Your task to perform on an android device: make emails show in primary in the gmail app Image 0: 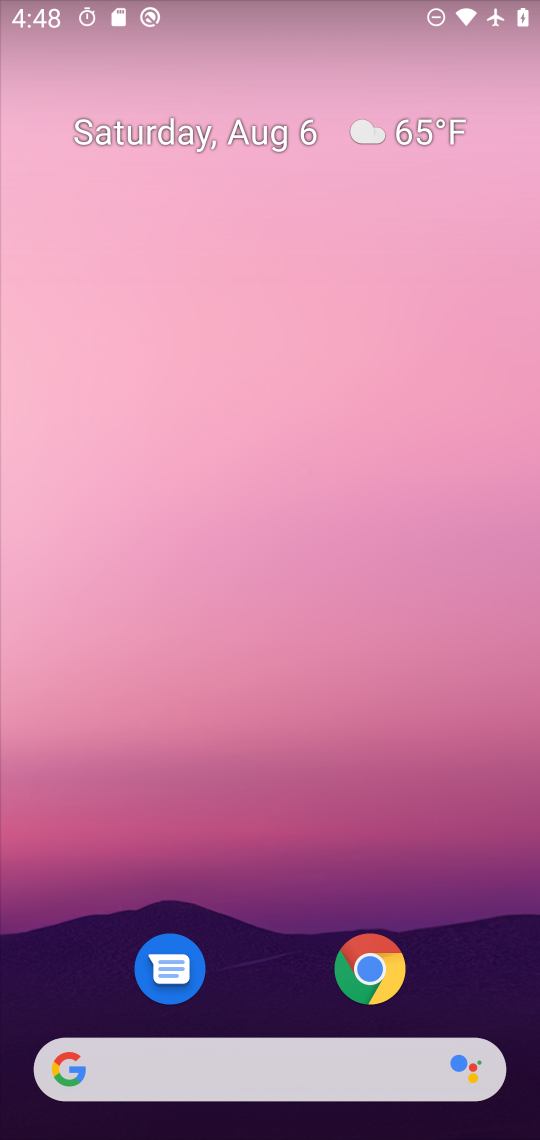
Step 0: press home button
Your task to perform on an android device: make emails show in primary in the gmail app Image 1: 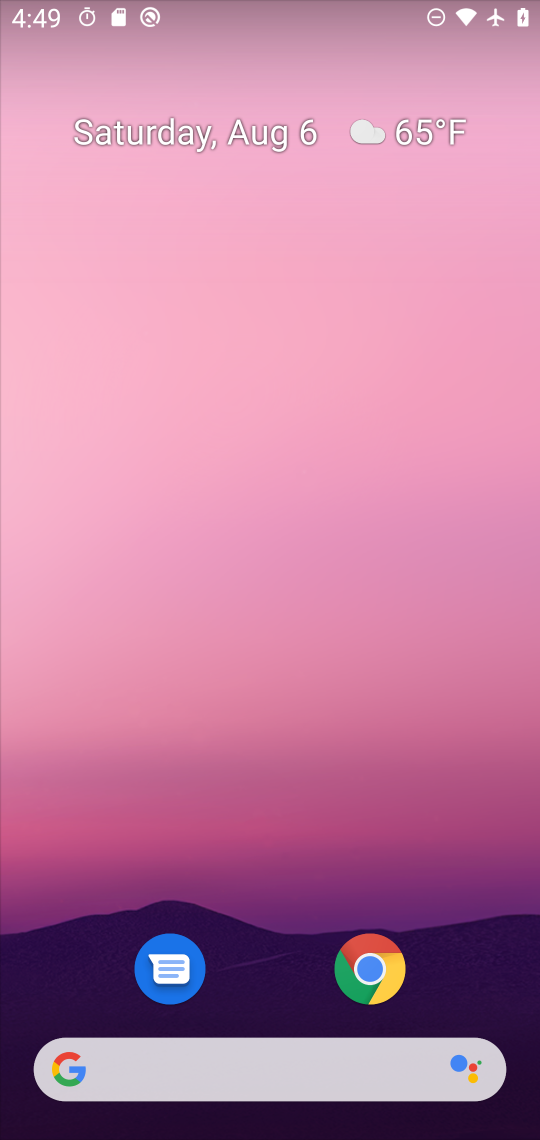
Step 1: drag from (304, 809) to (294, 210)
Your task to perform on an android device: make emails show in primary in the gmail app Image 2: 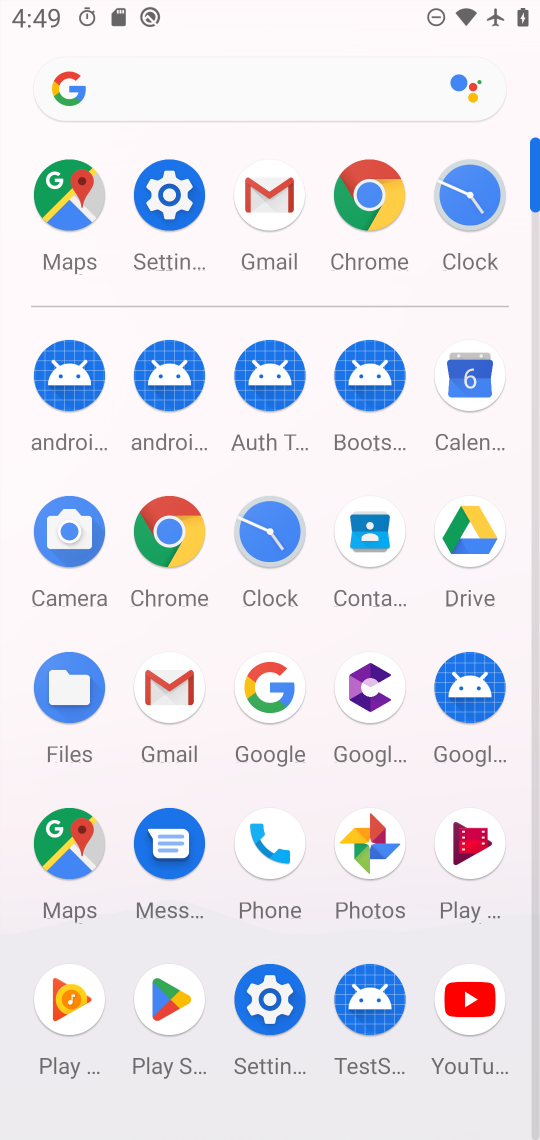
Step 2: click (264, 206)
Your task to perform on an android device: make emails show in primary in the gmail app Image 3: 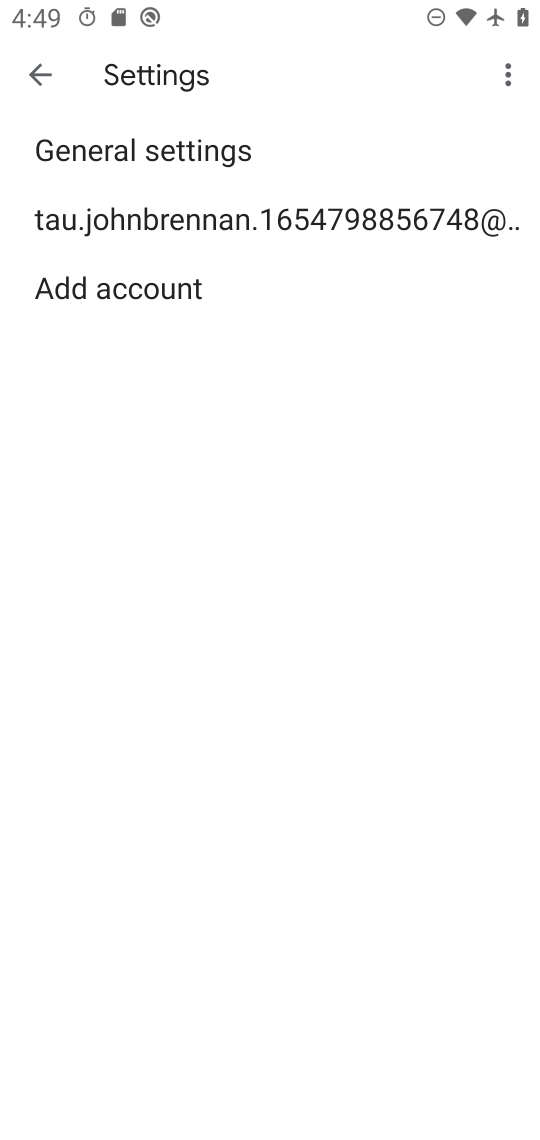
Step 3: click (212, 224)
Your task to perform on an android device: make emails show in primary in the gmail app Image 4: 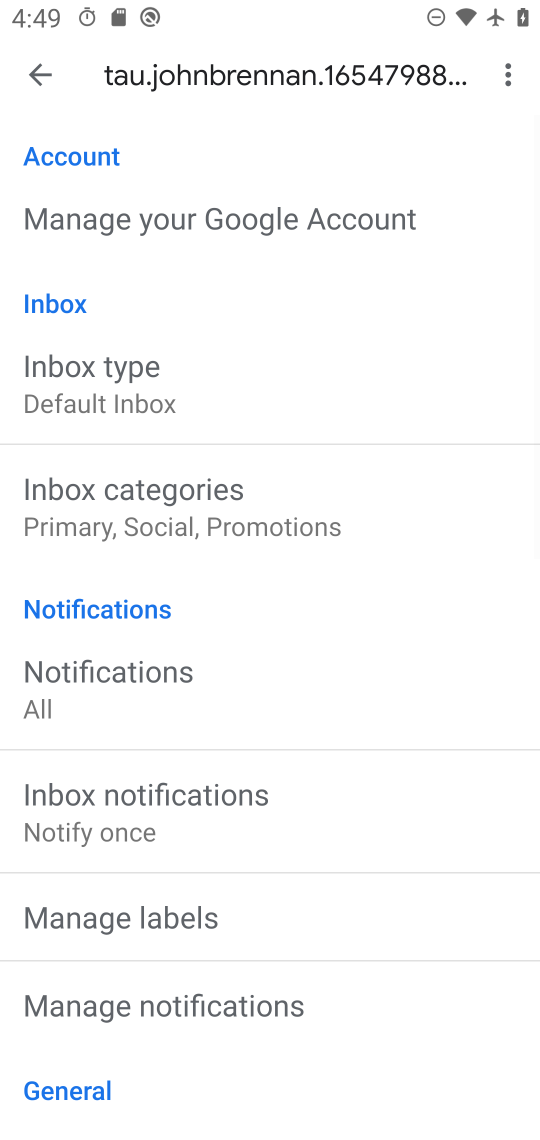
Step 4: click (187, 510)
Your task to perform on an android device: make emails show in primary in the gmail app Image 5: 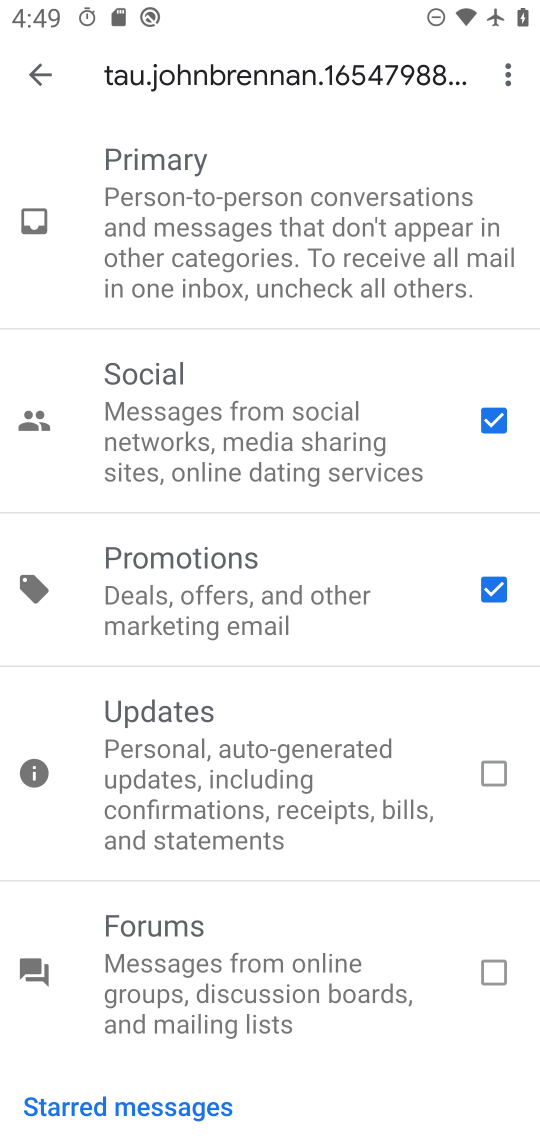
Step 5: click (489, 417)
Your task to perform on an android device: make emails show in primary in the gmail app Image 6: 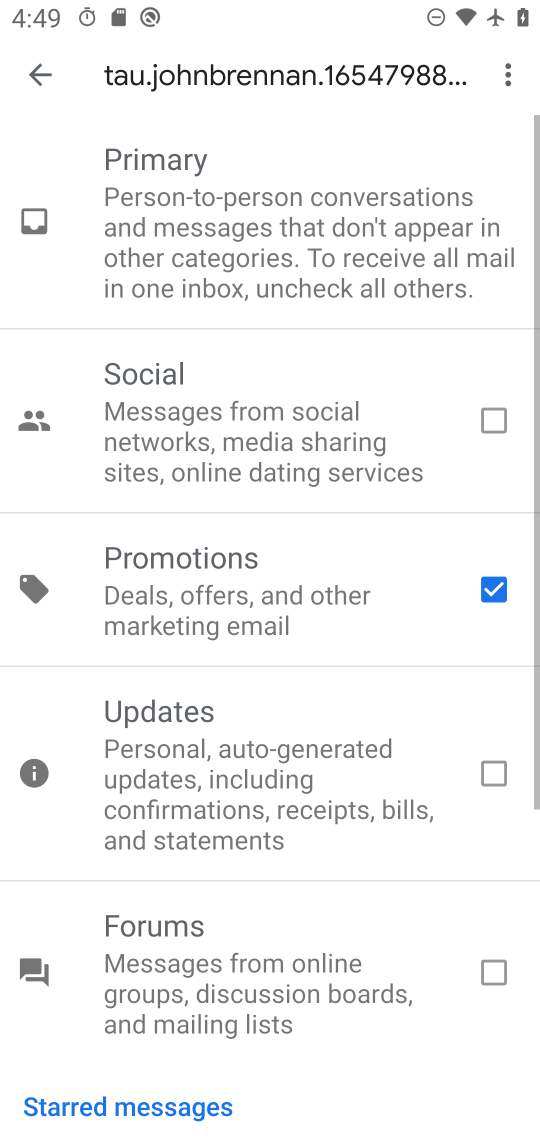
Step 6: click (494, 589)
Your task to perform on an android device: make emails show in primary in the gmail app Image 7: 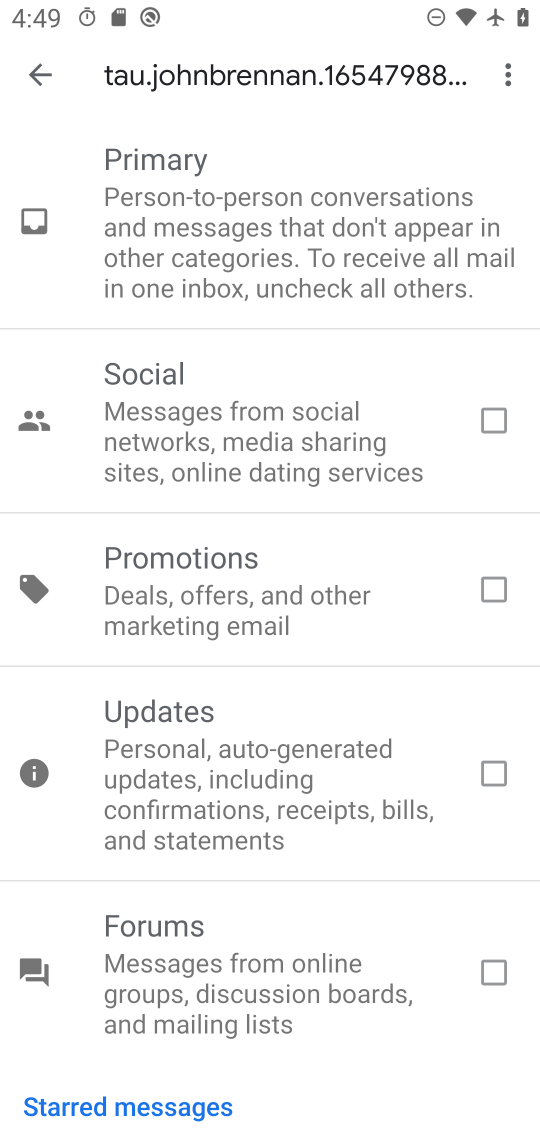
Step 7: task complete